Your task to perform on an android device: open device folders in google photos Image 0: 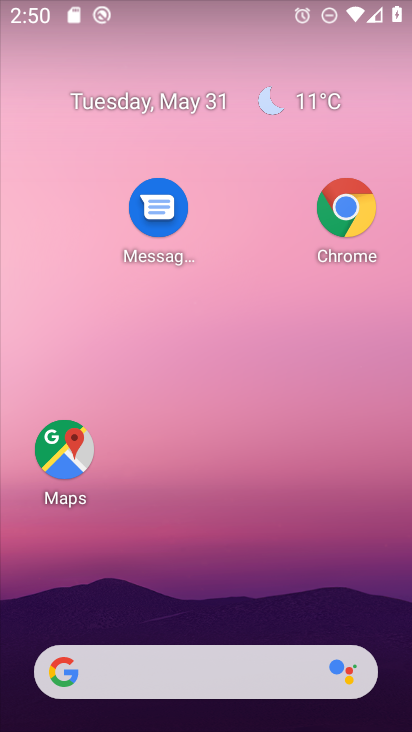
Step 0: click (280, 89)
Your task to perform on an android device: open device folders in google photos Image 1: 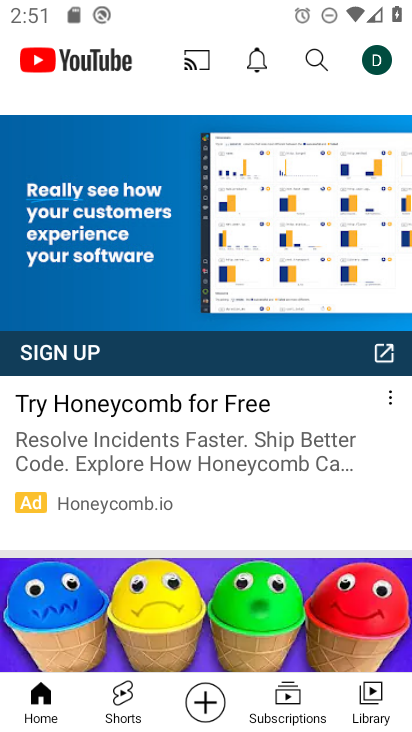
Step 1: press home button
Your task to perform on an android device: open device folders in google photos Image 2: 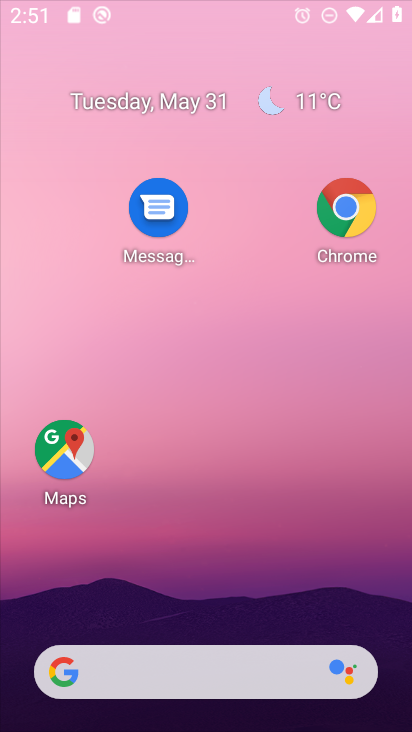
Step 2: drag from (222, 622) to (325, 124)
Your task to perform on an android device: open device folders in google photos Image 3: 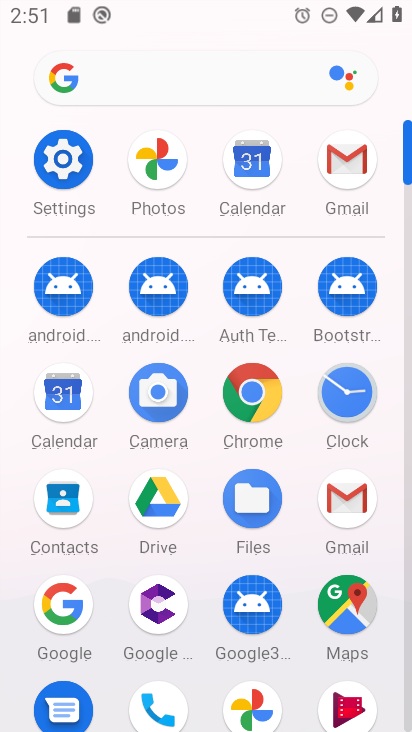
Step 3: click (252, 697)
Your task to perform on an android device: open device folders in google photos Image 4: 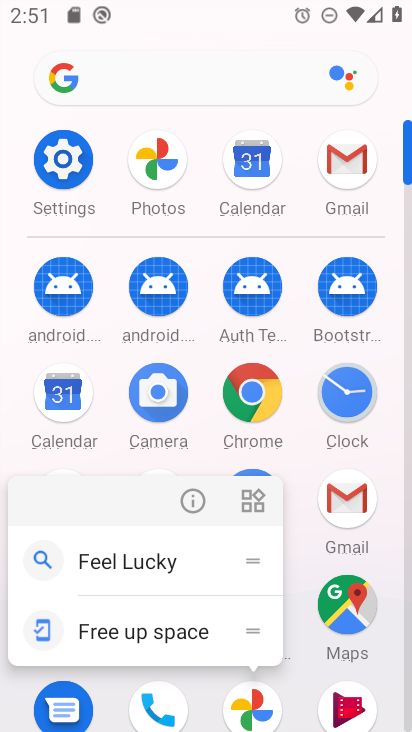
Step 4: click (181, 496)
Your task to perform on an android device: open device folders in google photos Image 5: 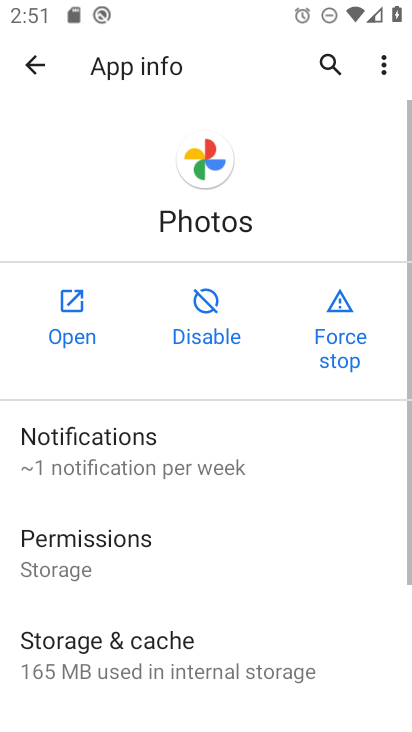
Step 5: click (78, 321)
Your task to perform on an android device: open device folders in google photos Image 6: 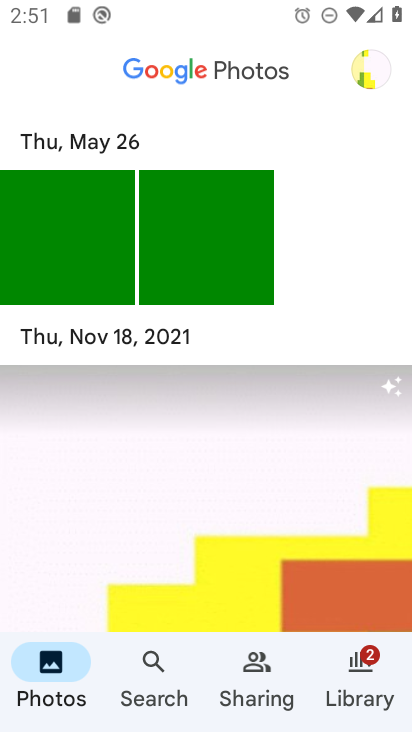
Step 6: drag from (231, 556) to (372, 195)
Your task to perform on an android device: open device folders in google photos Image 7: 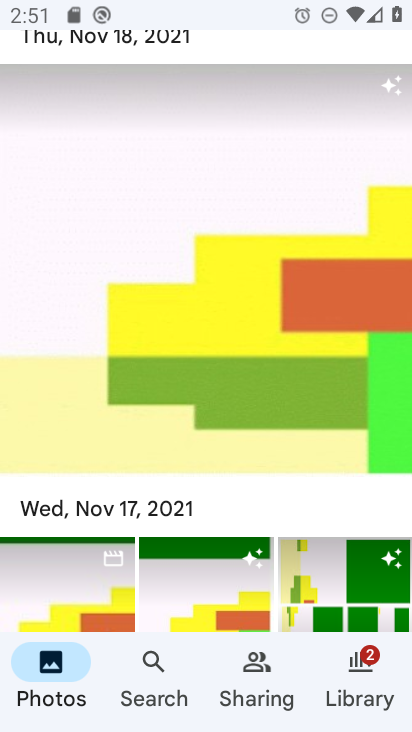
Step 7: drag from (222, 549) to (252, 223)
Your task to perform on an android device: open device folders in google photos Image 8: 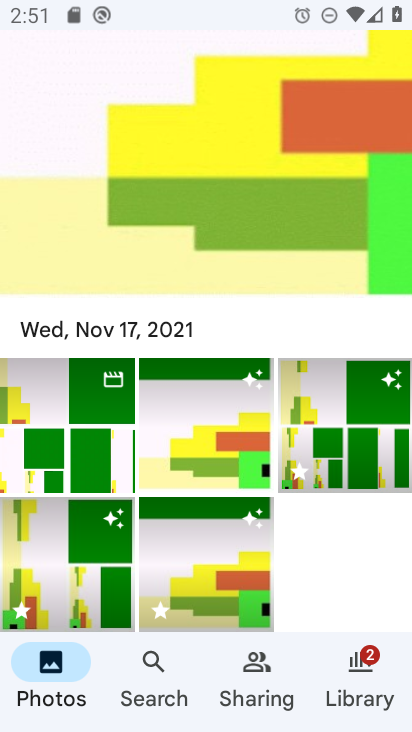
Step 8: click (341, 648)
Your task to perform on an android device: open device folders in google photos Image 9: 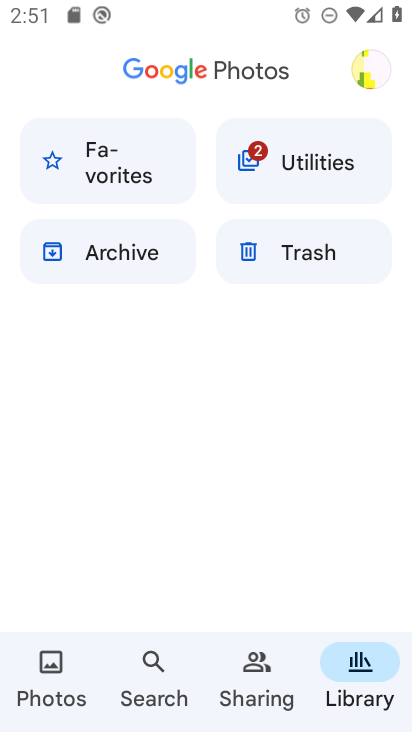
Step 9: task complete